Your task to perform on an android device: Open Google Maps Image 0: 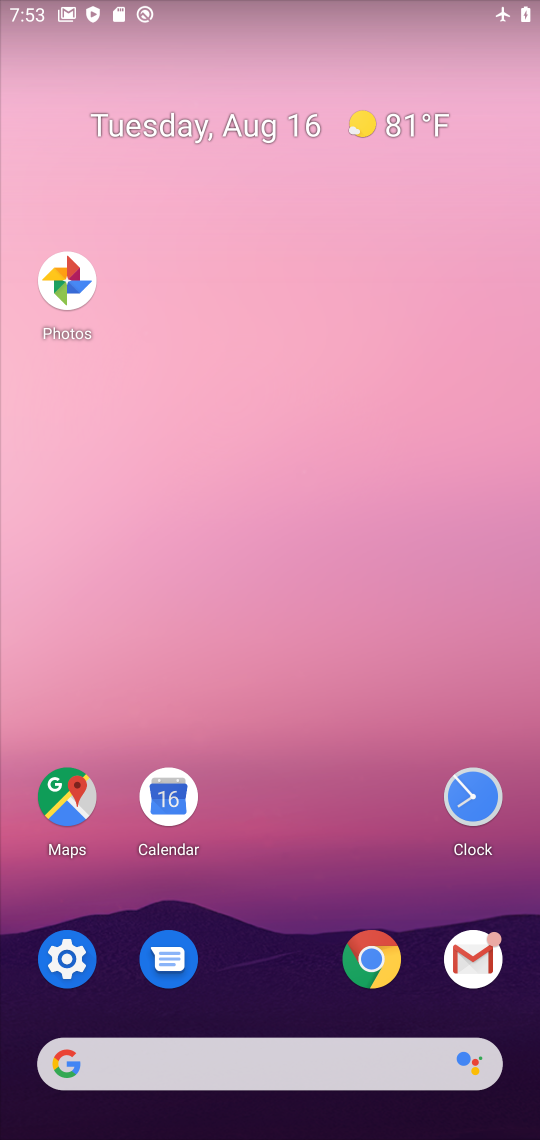
Step 0: click (63, 803)
Your task to perform on an android device: Open Google Maps Image 1: 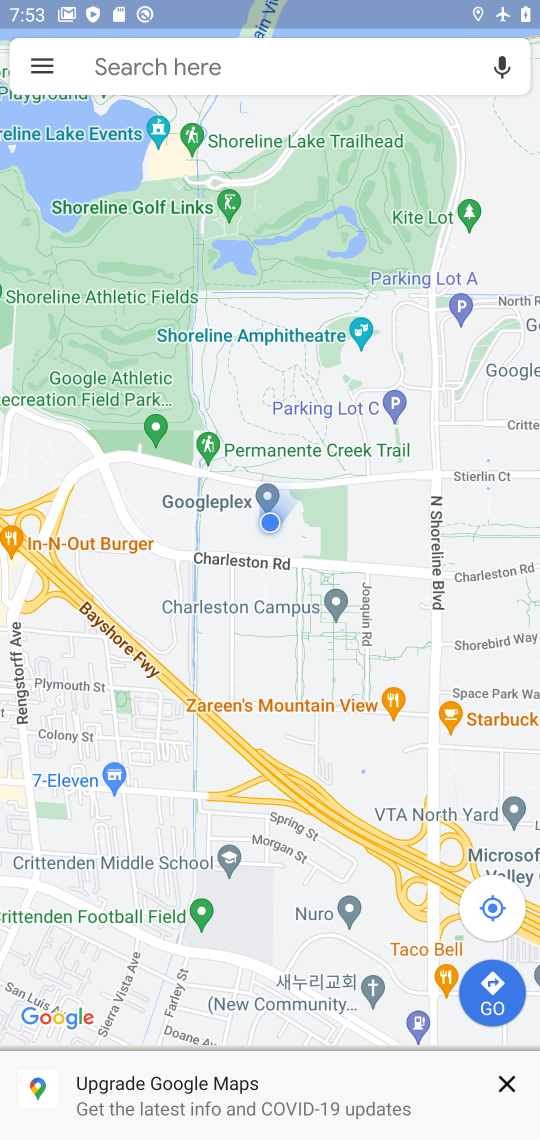
Step 1: task complete